Your task to perform on an android device: check data usage Image 0: 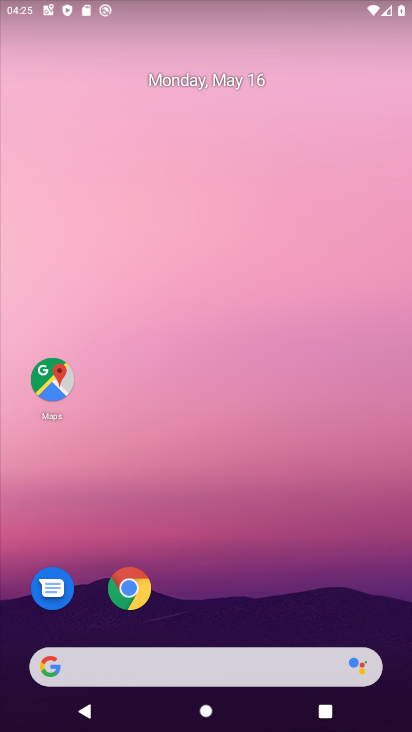
Step 0: drag from (288, 542) to (253, 6)
Your task to perform on an android device: check data usage Image 1: 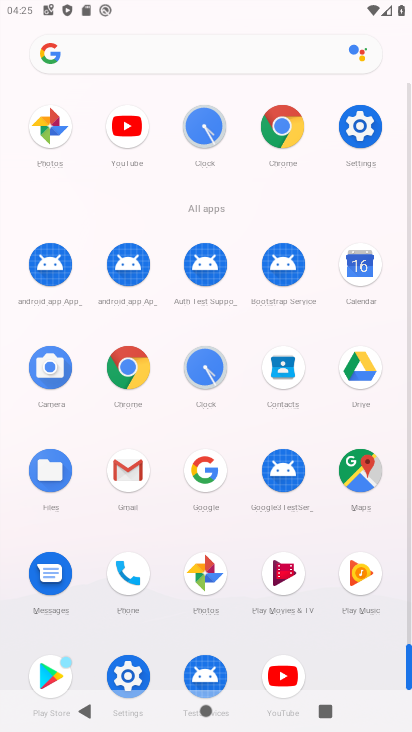
Step 1: click (355, 125)
Your task to perform on an android device: check data usage Image 2: 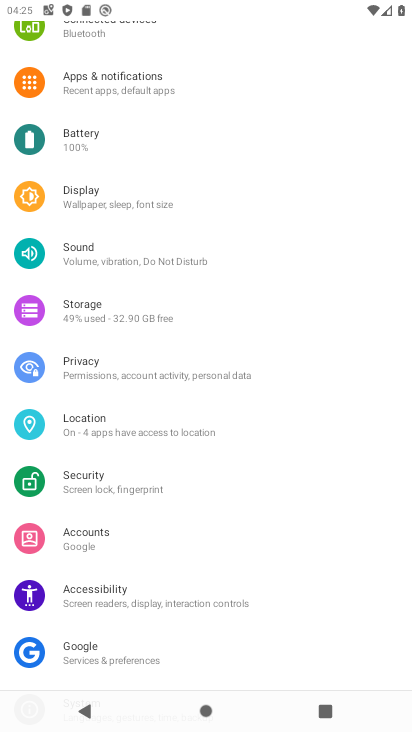
Step 2: drag from (220, 95) to (215, 561)
Your task to perform on an android device: check data usage Image 3: 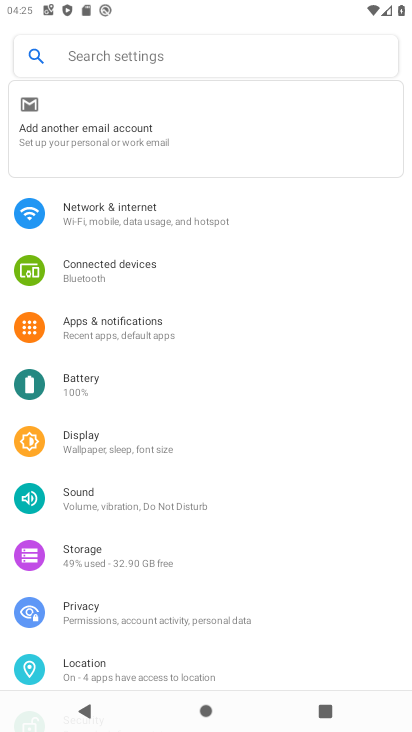
Step 3: click (182, 209)
Your task to perform on an android device: check data usage Image 4: 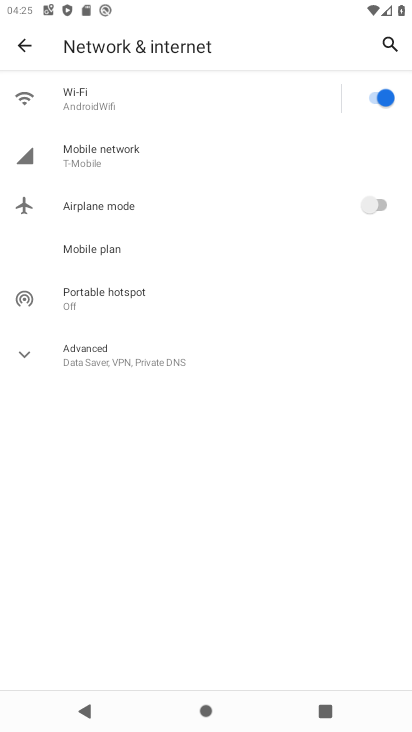
Step 4: click (15, 358)
Your task to perform on an android device: check data usage Image 5: 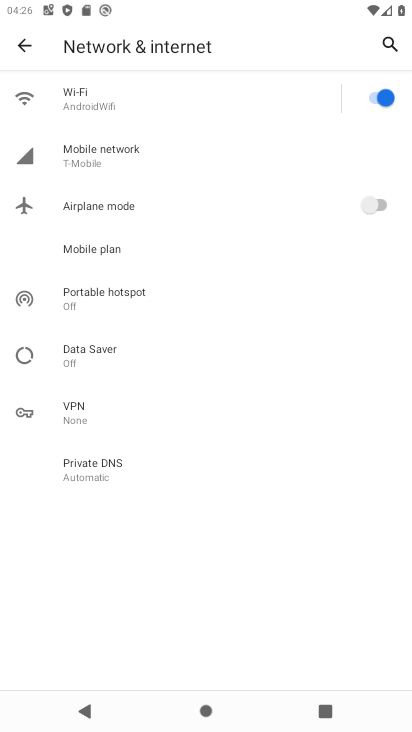
Step 5: click (176, 156)
Your task to perform on an android device: check data usage Image 6: 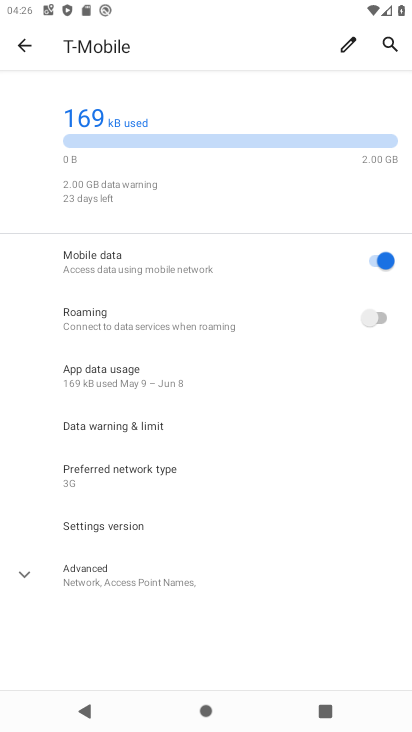
Step 6: task complete